Your task to perform on an android device: set the timer Image 0: 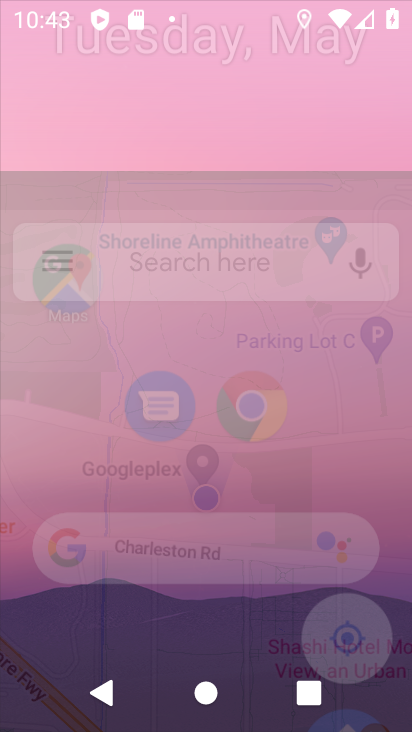
Step 0: drag from (406, 585) to (294, 195)
Your task to perform on an android device: set the timer Image 1: 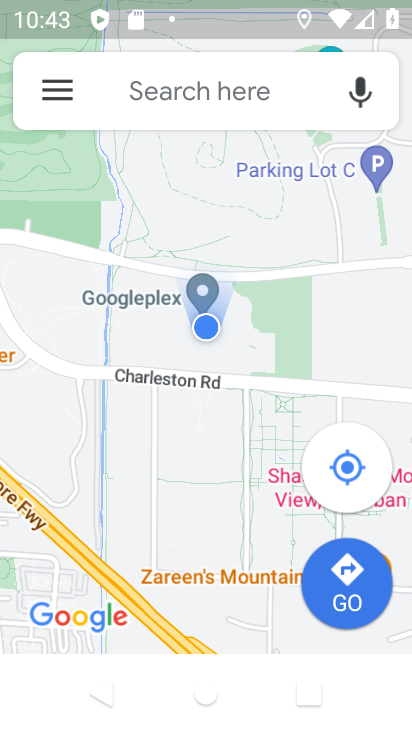
Step 1: press home button
Your task to perform on an android device: set the timer Image 2: 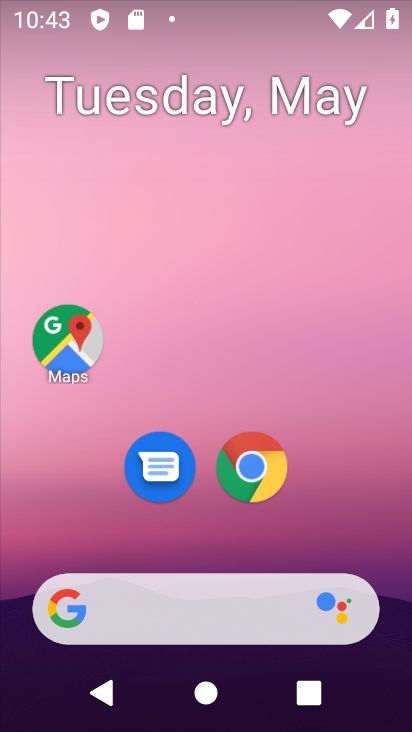
Step 2: drag from (399, 537) to (263, 98)
Your task to perform on an android device: set the timer Image 3: 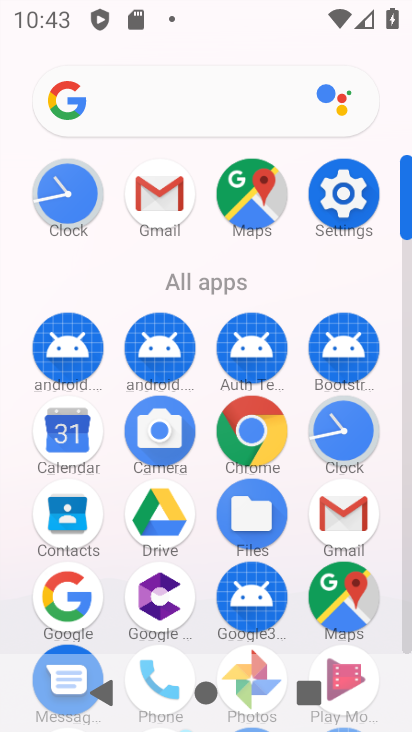
Step 3: click (47, 194)
Your task to perform on an android device: set the timer Image 4: 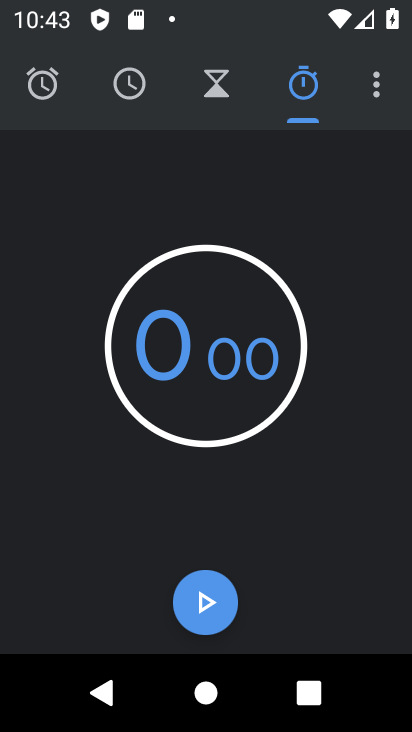
Step 4: click (207, 86)
Your task to perform on an android device: set the timer Image 5: 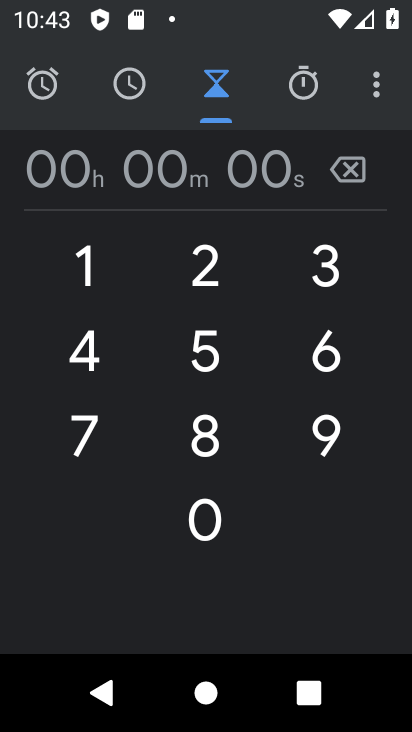
Step 5: type "100000"
Your task to perform on an android device: set the timer Image 6: 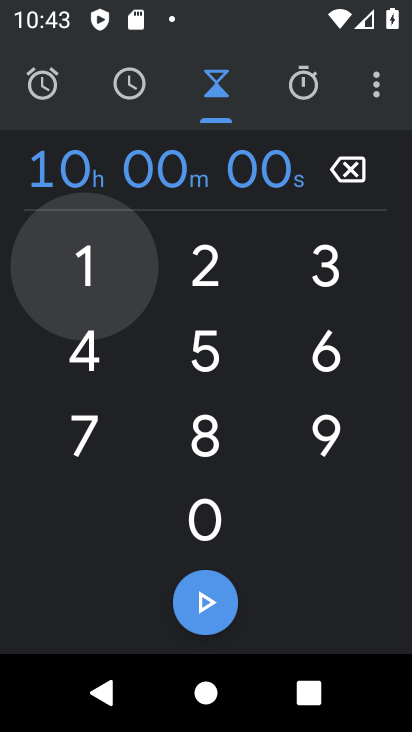
Step 6: click (226, 602)
Your task to perform on an android device: set the timer Image 7: 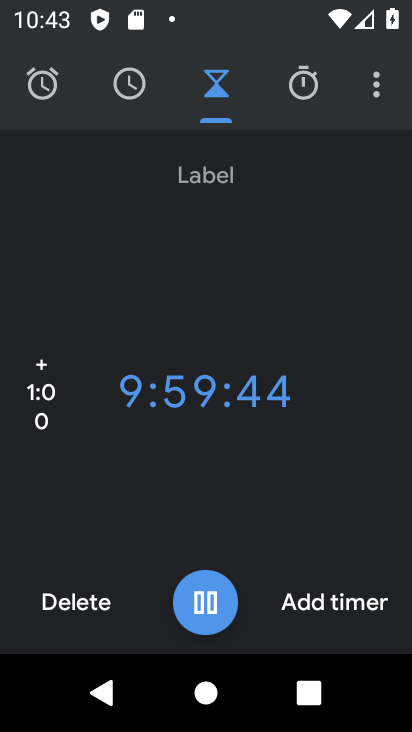
Step 7: task complete